Your task to perform on an android device: delete the emails in spam in the gmail app Image 0: 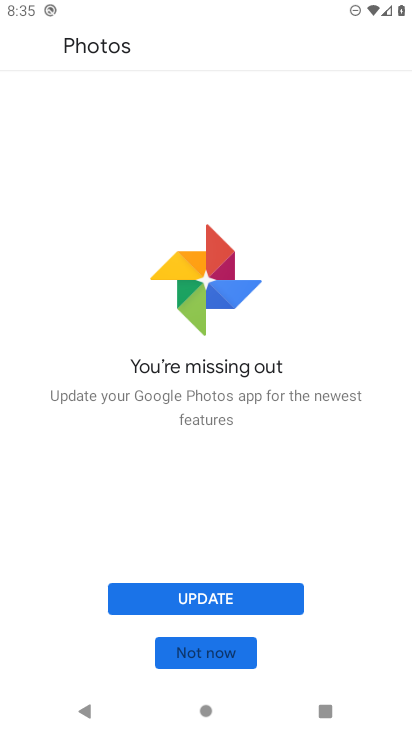
Step 0: press home button
Your task to perform on an android device: delete the emails in spam in the gmail app Image 1: 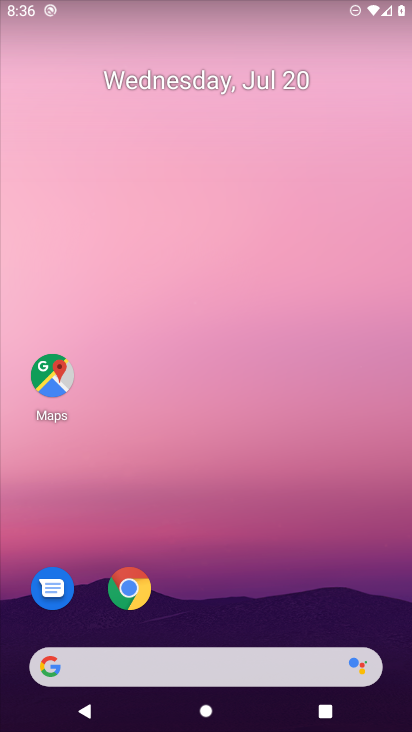
Step 1: drag from (20, 686) to (237, 4)
Your task to perform on an android device: delete the emails in spam in the gmail app Image 2: 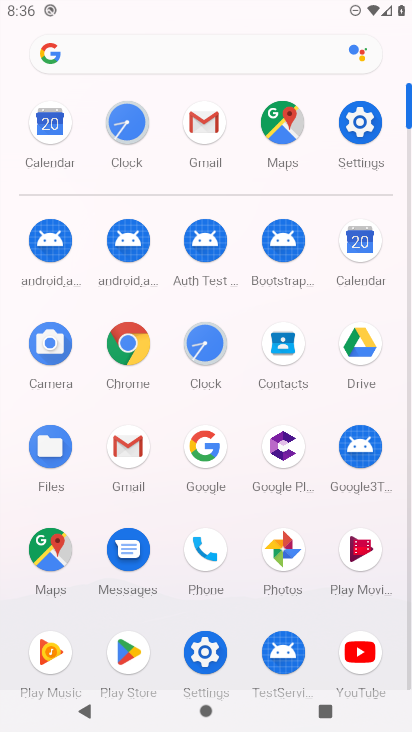
Step 2: click (125, 447)
Your task to perform on an android device: delete the emails in spam in the gmail app Image 3: 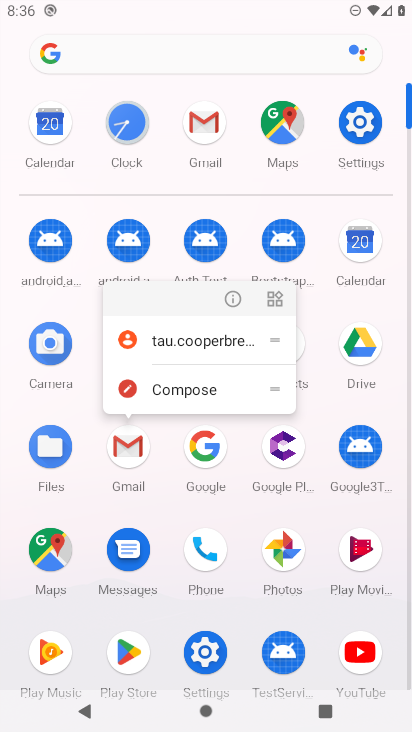
Step 3: click (134, 466)
Your task to perform on an android device: delete the emails in spam in the gmail app Image 4: 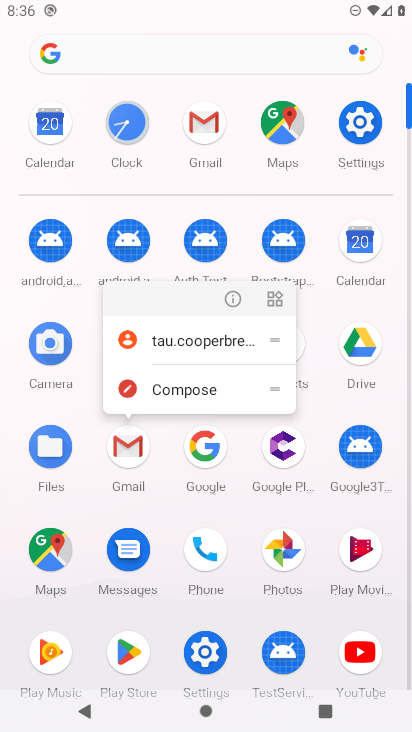
Step 4: click (125, 459)
Your task to perform on an android device: delete the emails in spam in the gmail app Image 5: 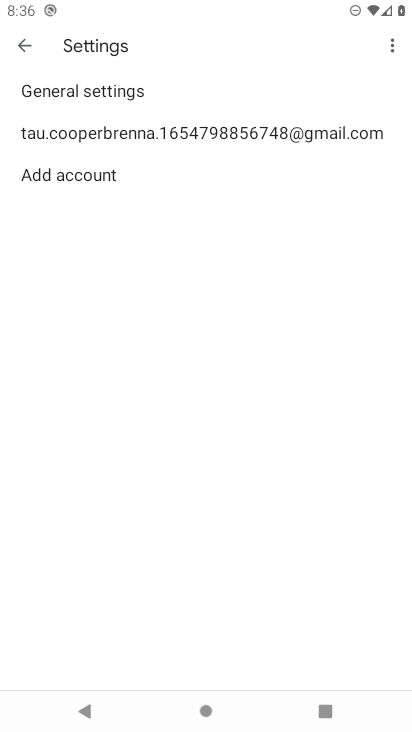
Step 5: click (9, 47)
Your task to perform on an android device: delete the emails in spam in the gmail app Image 6: 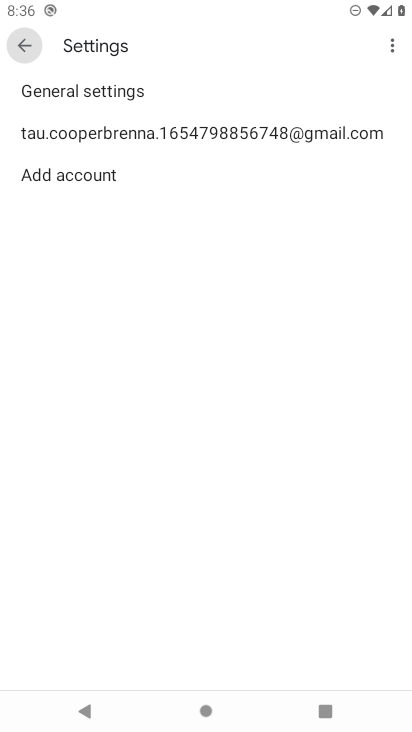
Step 6: click (14, 47)
Your task to perform on an android device: delete the emails in spam in the gmail app Image 7: 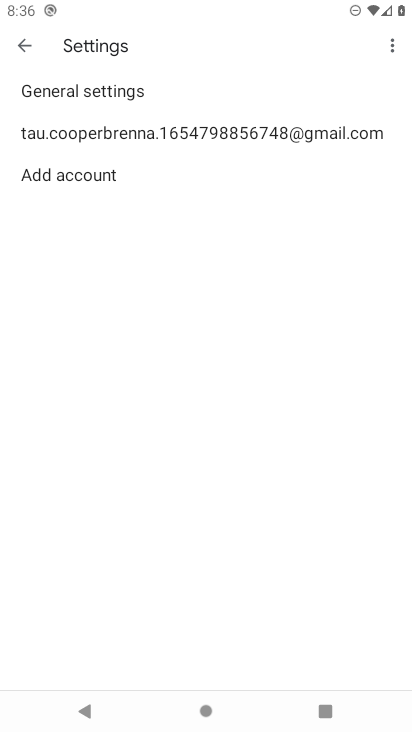
Step 7: click (25, 43)
Your task to perform on an android device: delete the emails in spam in the gmail app Image 8: 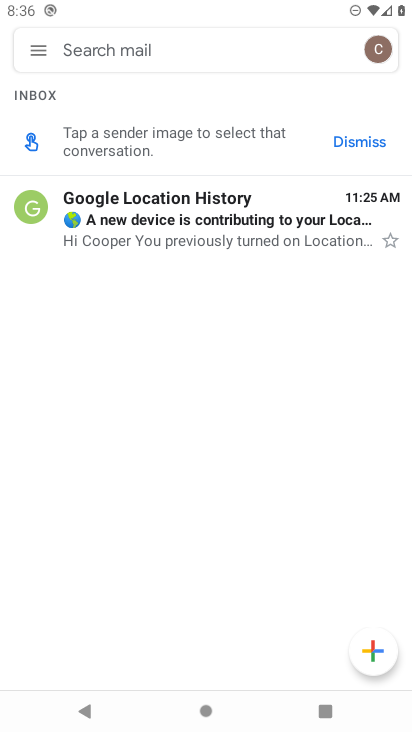
Step 8: click (37, 43)
Your task to perform on an android device: delete the emails in spam in the gmail app Image 9: 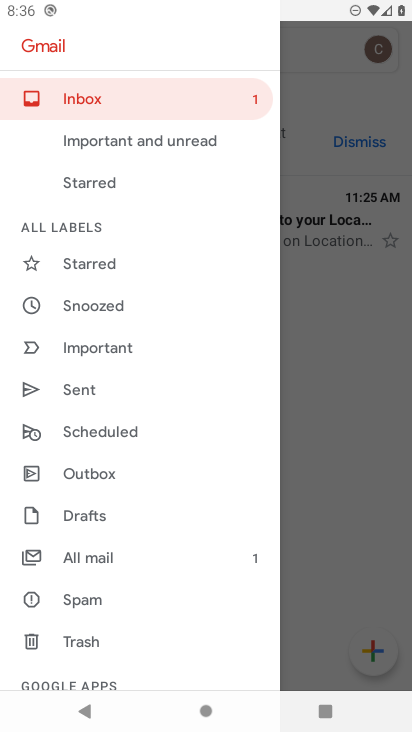
Step 9: click (96, 596)
Your task to perform on an android device: delete the emails in spam in the gmail app Image 10: 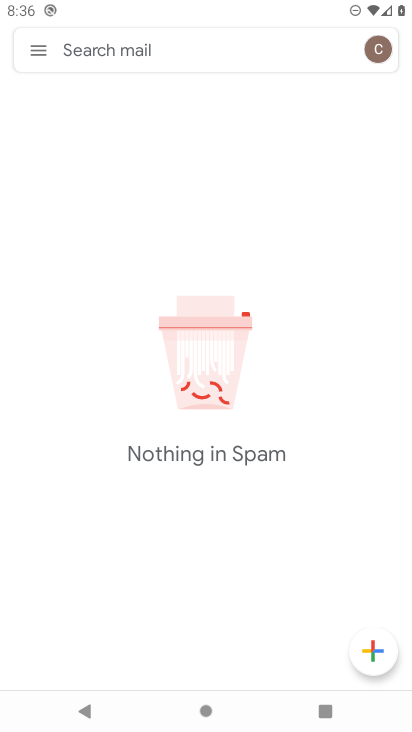
Step 10: task complete